Your task to perform on an android device: Open calendar and show me the third week of next month Image 0: 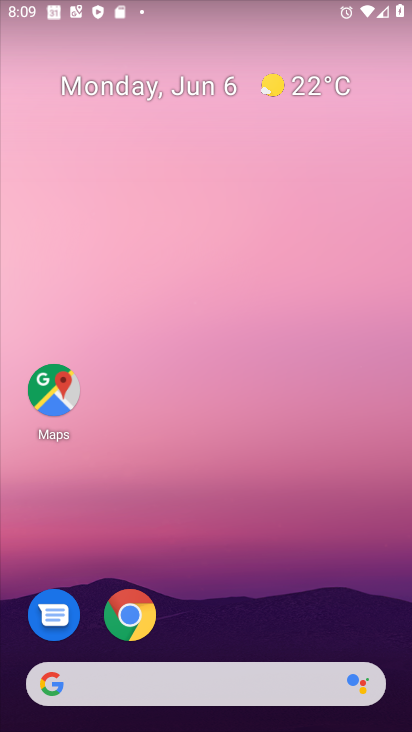
Step 0: drag from (398, 726) to (382, 195)
Your task to perform on an android device: Open calendar and show me the third week of next month Image 1: 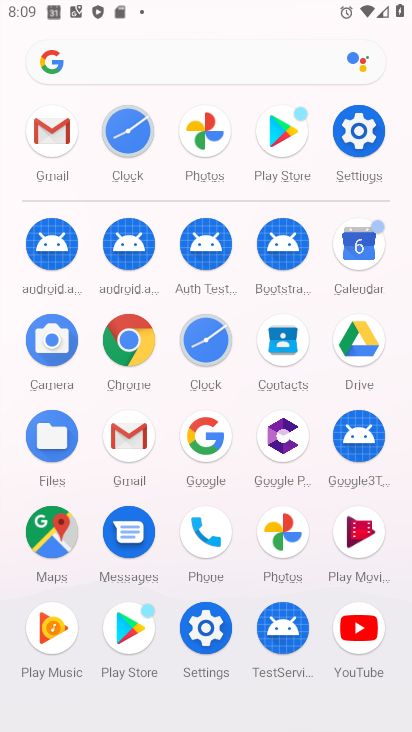
Step 1: click (351, 254)
Your task to perform on an android device: Open calendar and show me the third week of next month Image 2: 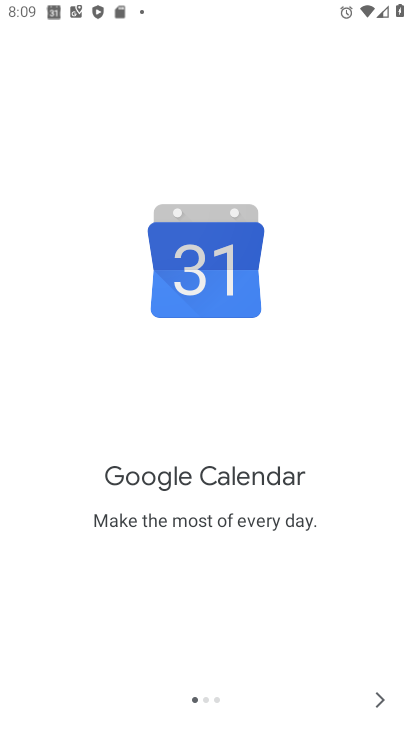
Step 2: click (373, 695)
Your task to perform on an android device: Open calendar and show me the third week of next month Image 3: 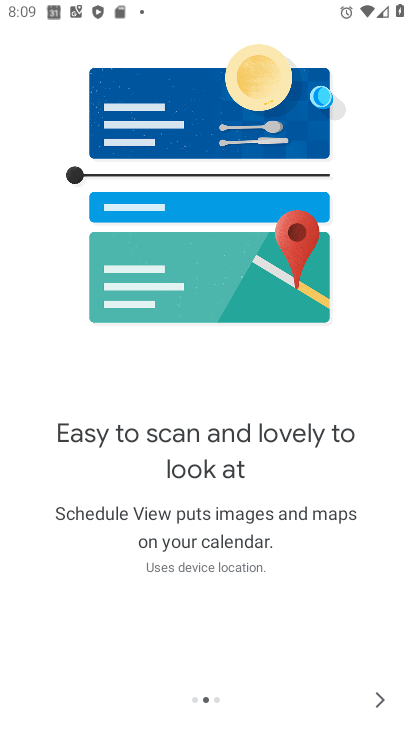
Step 3: click (373, 695)
Your task to perform on an android device: Open calendar and show me the third week of next month Image 4: 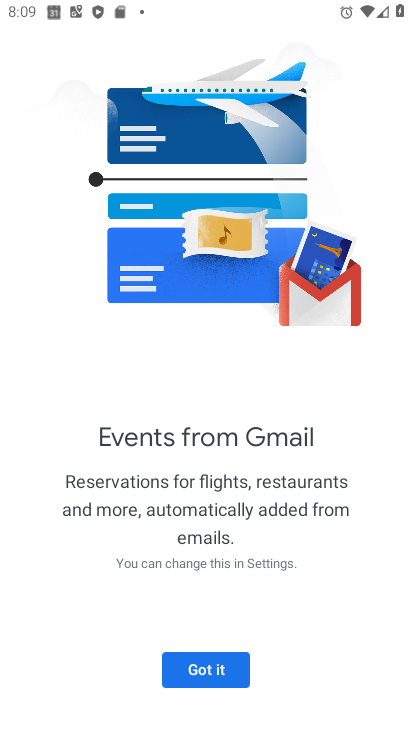
Step 4: click (226, 655)
Your task to perform on an android device: Open calendar and show me the third week of next month Image 5: 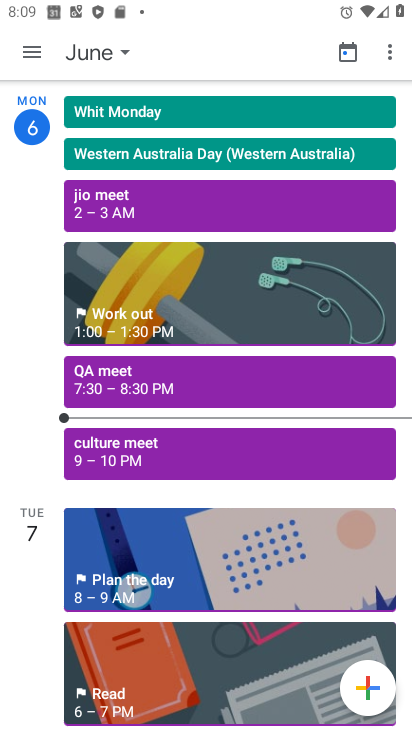
Step 5: click (116, 52)
Your task to perform on an android device: Open calendar and show me the third week of next month Image 6: 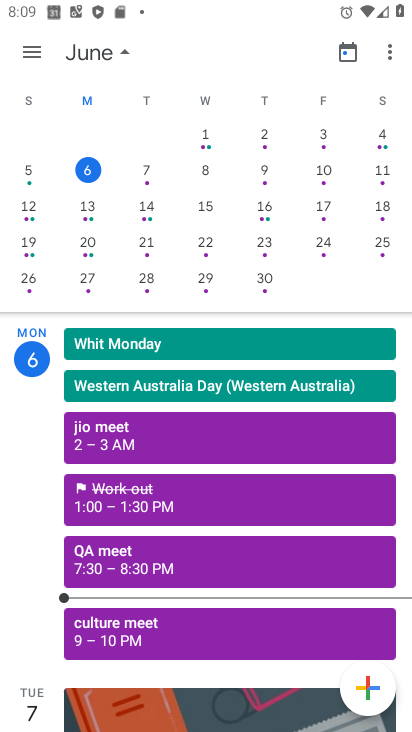
Step 6: drag from (393, 206) to (93, 195)
Your task to perform on an android device: Open calendar and show me the third week of next month Image 7: 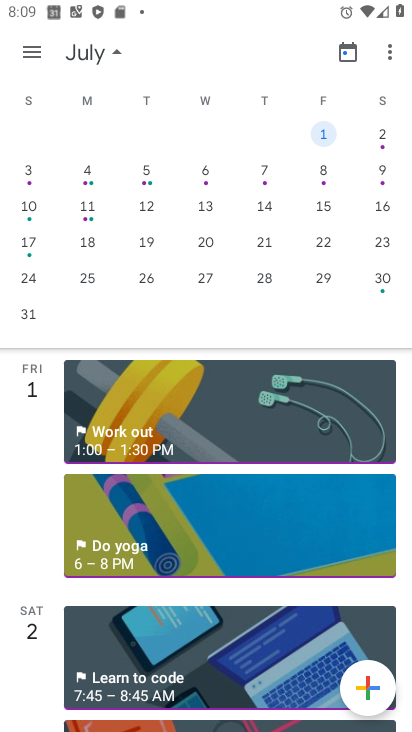
Step 7: click (320, 209)
Your task to perform on an android device: Open calendar and show me the third week of next month Image 8: 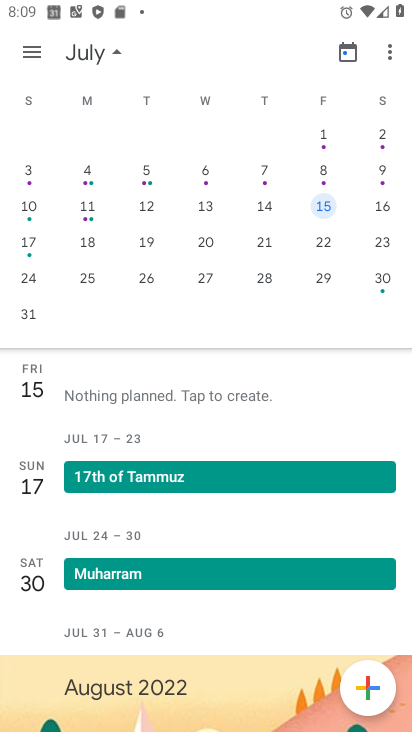
Step 8: task complete